Your task to perform on an android device: Open Google Chrome Image 0: 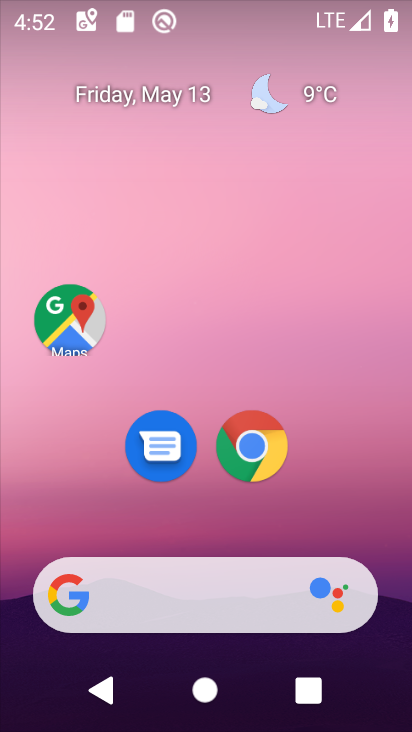
Step 0: click (223, 453)
Your task to perform on an android device: Open Google Chrome Image 1: 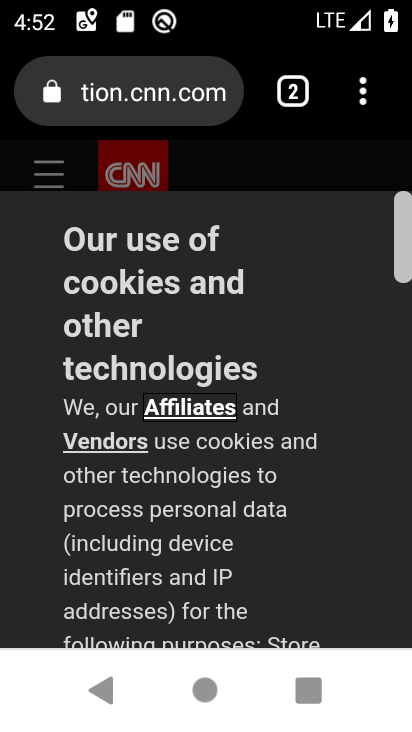
Step 1: task complete